Your task to perform on an android device: Open the map Image 0: 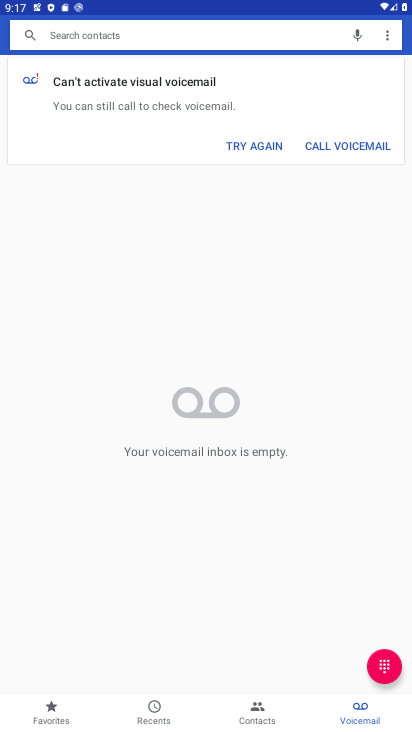
Step 0: press home button
Your task to perform on an android device: Open the map Image 1: 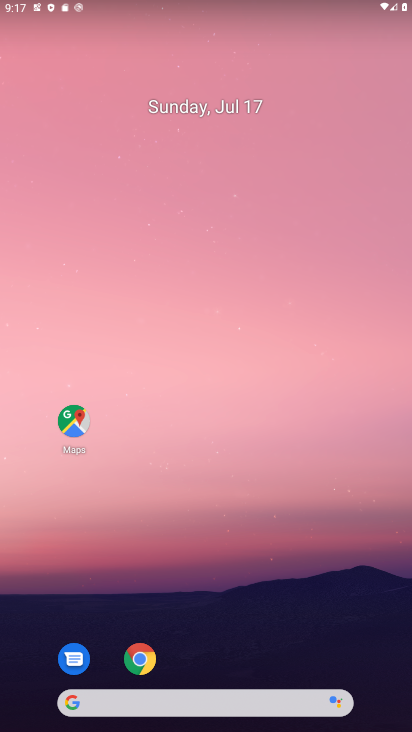
Step 1: click (54, 424)
Your task to perform on an android device: Open the map Image 2: 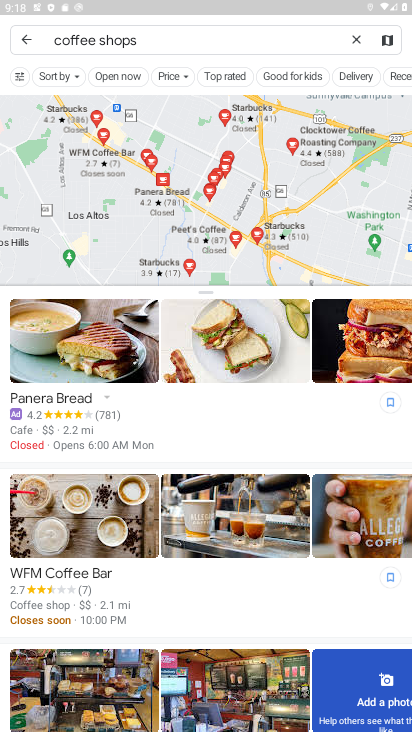
Step 2: task complete